Your task to perform on an android device: toggle data saver in the chrome app Image 0: 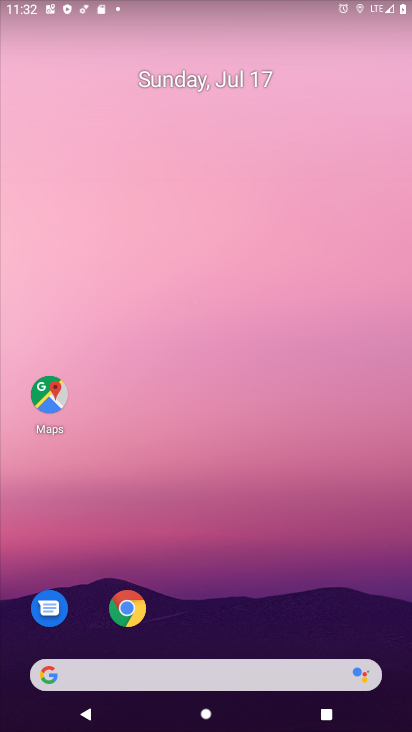
Step 0: drag from (198, 470) to (156, 62)
Your task to perform on an android device: toggle data saver in the chrome app Image 1: 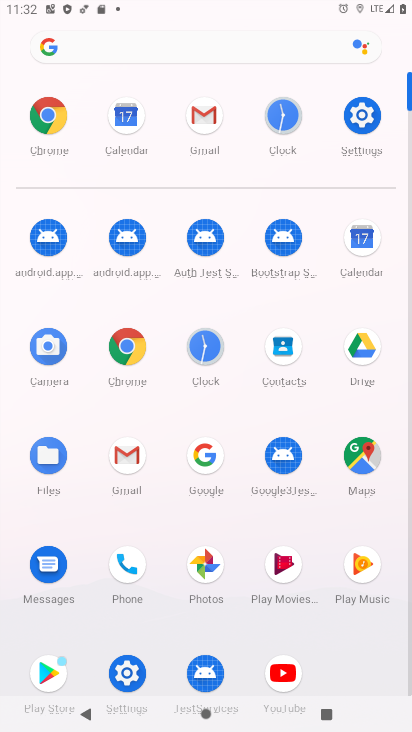
Step 1: click (132, 336)
Your task to perform on an android device: toggle data saver in the chrome app Image 2: 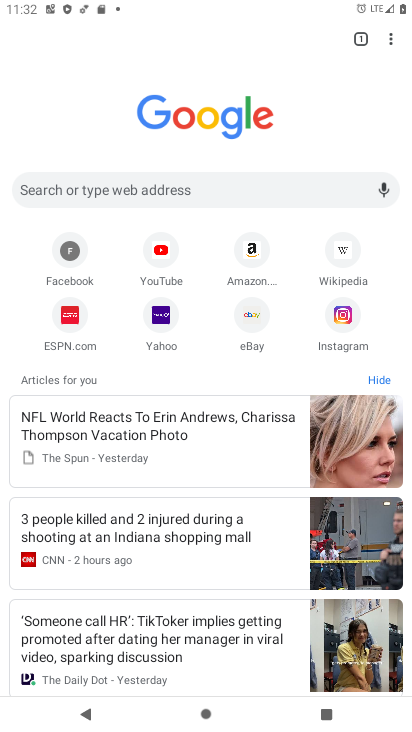
Step 2: click (383, 31)
Your task to perform on an android device: toggle data saver in the chrome app Image 3: 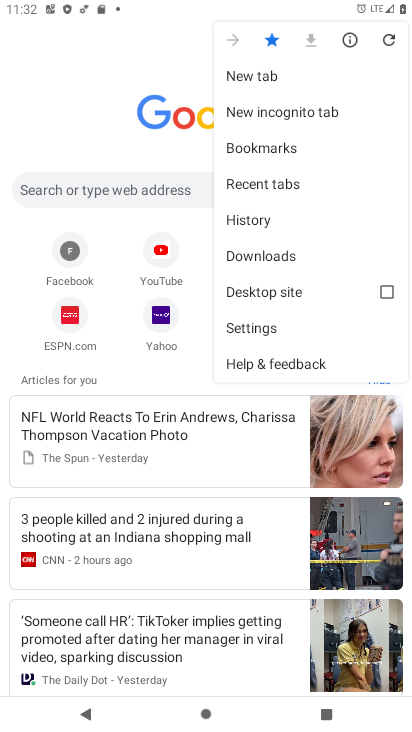
Step 3: click (266, 327)
Your task to perform on an android device: toggle data saver in the chrome app Image 4: 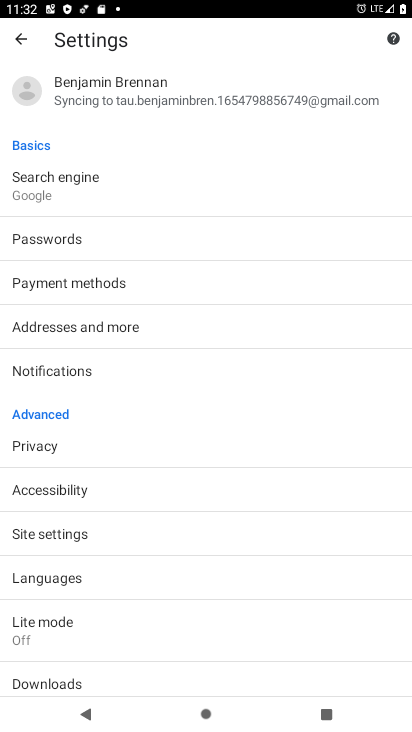
Step 4: click (68, 620)
Your task to perform on an android device: toggle data saver in the chrome app Image 5: 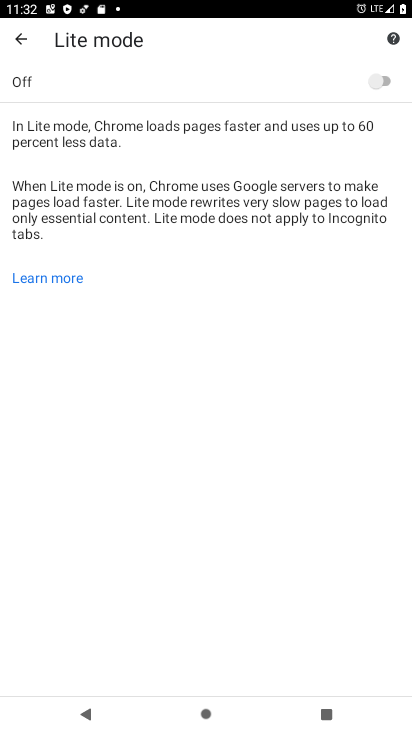
Step 5: click (381, 75)
Your task to perform on an android device: toggle data saver in the chrome app Image 6: 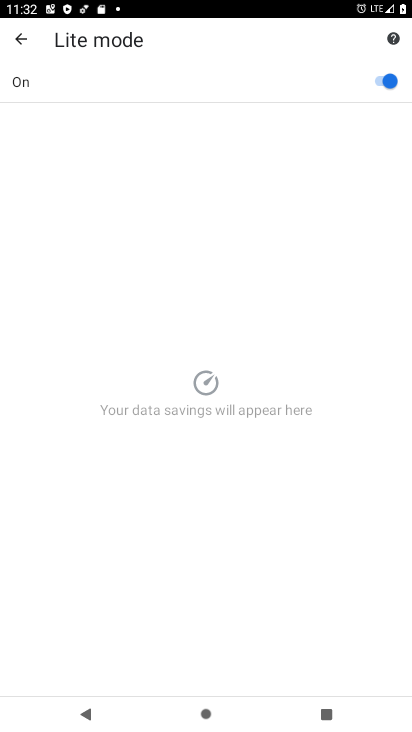
Step 6: task complete